Your task to perform on an android device: see sites visited before in the chrome app Image 0: 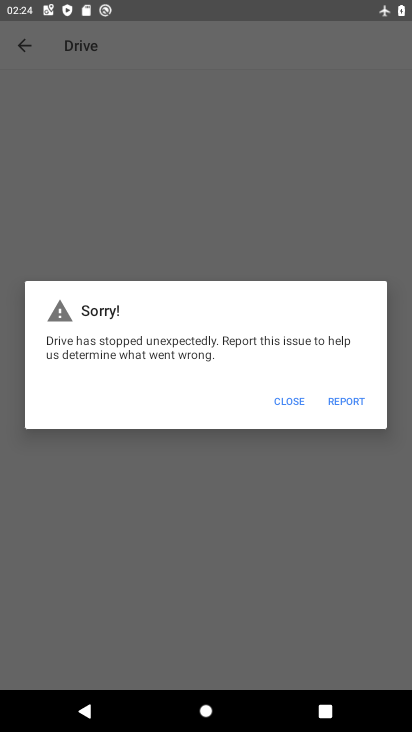
Step 0: press home button
Your task to perform on an android device: see sites visited before in the chrome app Image 1: 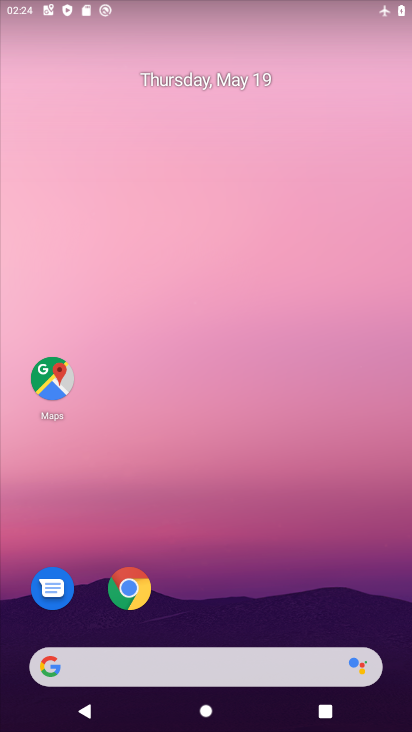
Step 1: click (138, 586)
Your task to perform on an android device: see sites visited before in the chrome app Image 2: 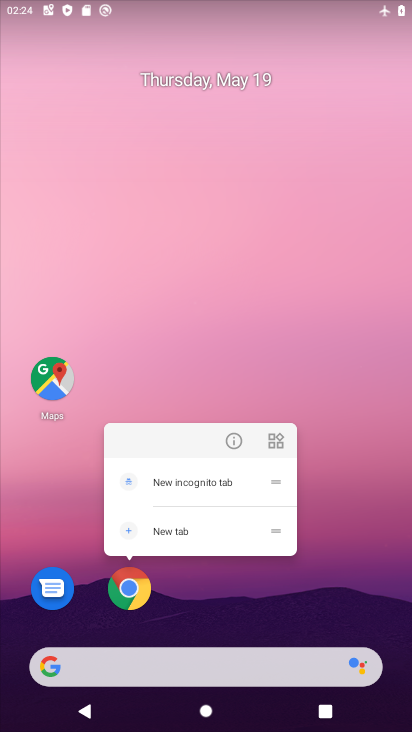
Step 2: click (123, 597)
Your task to perform on an android device: see sites visited before in the chrome app Image 3: 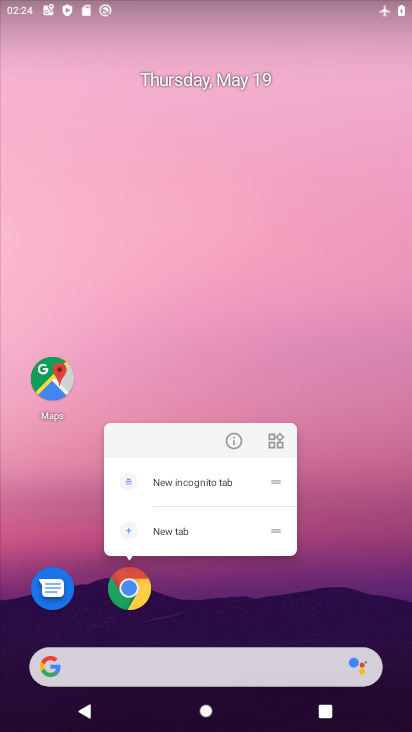
Step 3: click (131, 591)
Your task to perform on an android device: see sites visited before in the chrome app Image 4: 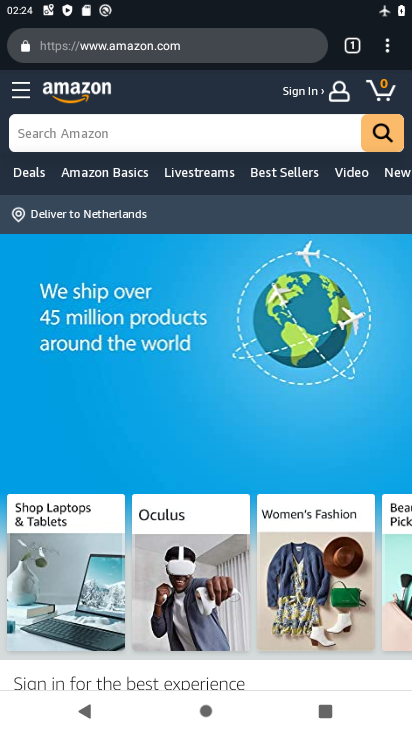
Step 4: click (382, 46)
Your task to perform on an android device: see sites visited before in the chrome app Image 5: 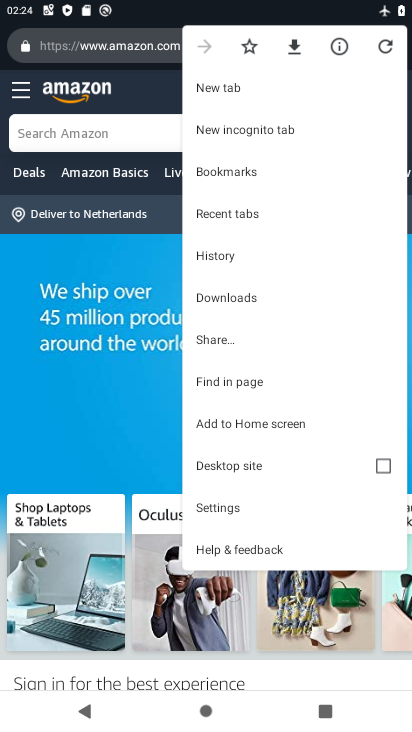
Step 5: click (237, 259)
Your task to perform on an android device: see sites visited before in the chrome app Image 6: 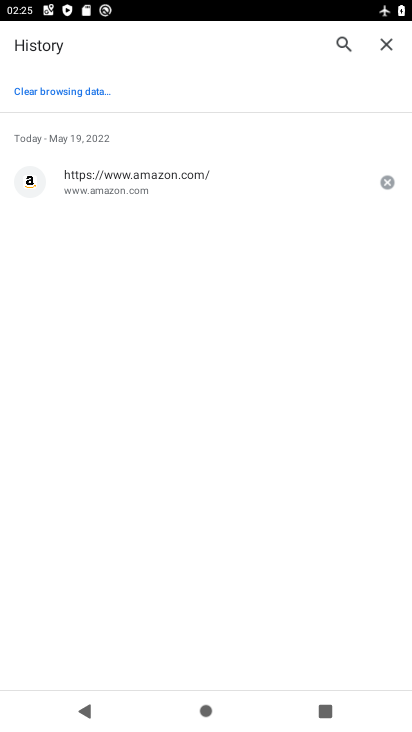
Step 6: task complete